Your task to perform on an android device: Search for macbook air on bestbuy.com, select the first entry, and add it to the cart. Image 0: 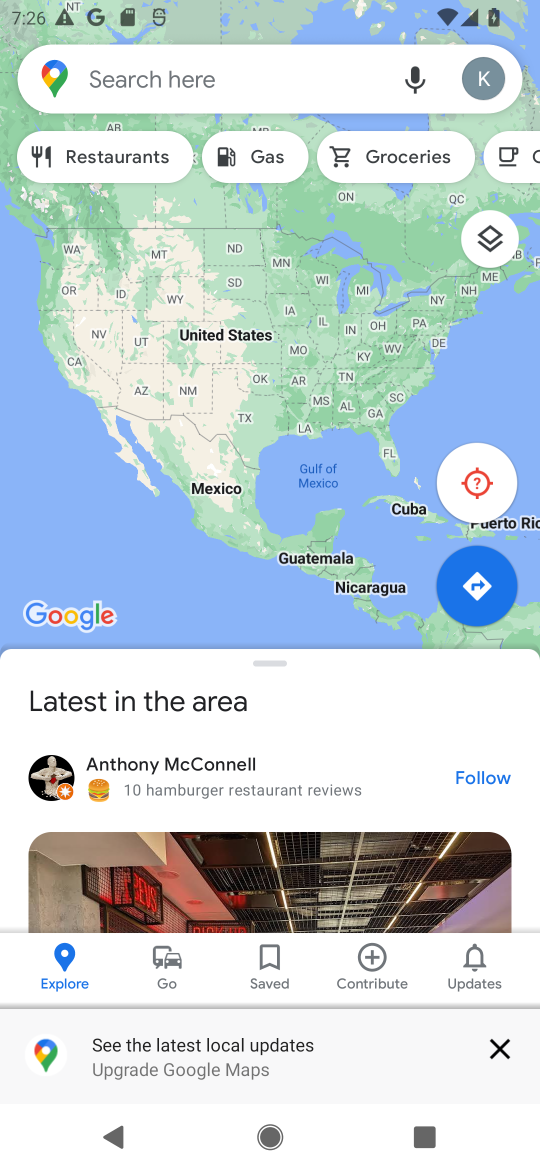
Step 0: press home button
Your task to perform on an android device: Search for macbook air on bestbuy.com, select the first entry, and add it to the cart. Image 1: 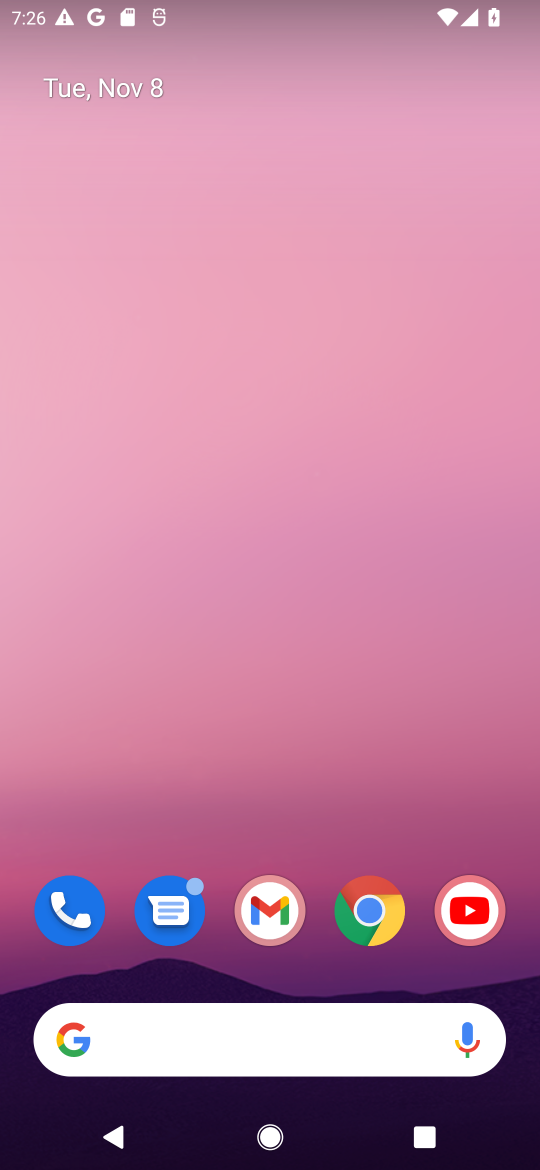
Step 1: click (377, 915)
Your task to perform on an android device: Search for macbook air on bestbuy.com, select the first entry, and add it to the cart. Image 2: 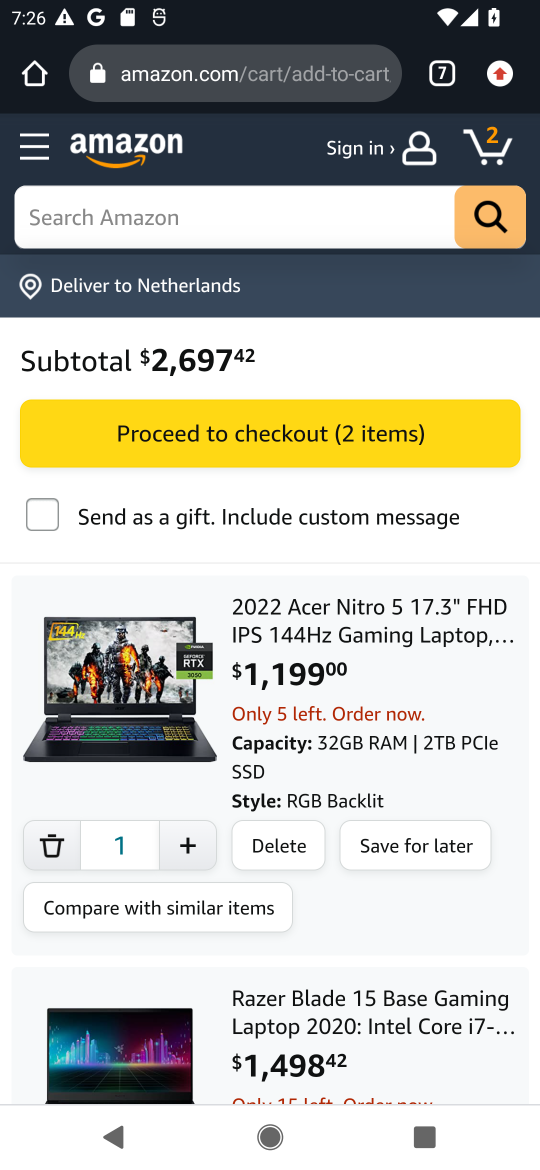
Step 2: click (444, 69)
Your task to perform on an android device: Search for macbook air on bestbuy.com, select the first entry, and add it to the cart. Image 3: 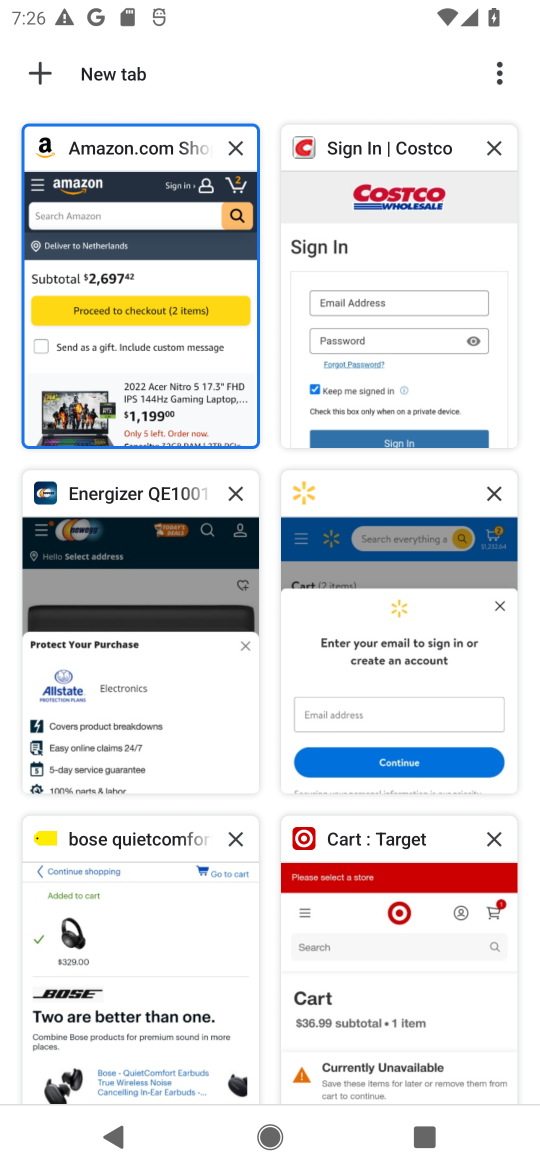
Step 3: click (131, 909)
Your task to perform on an android device: Search for macbook air on bestbuy.com, select the first entry, and add it to the cart. Image 4: 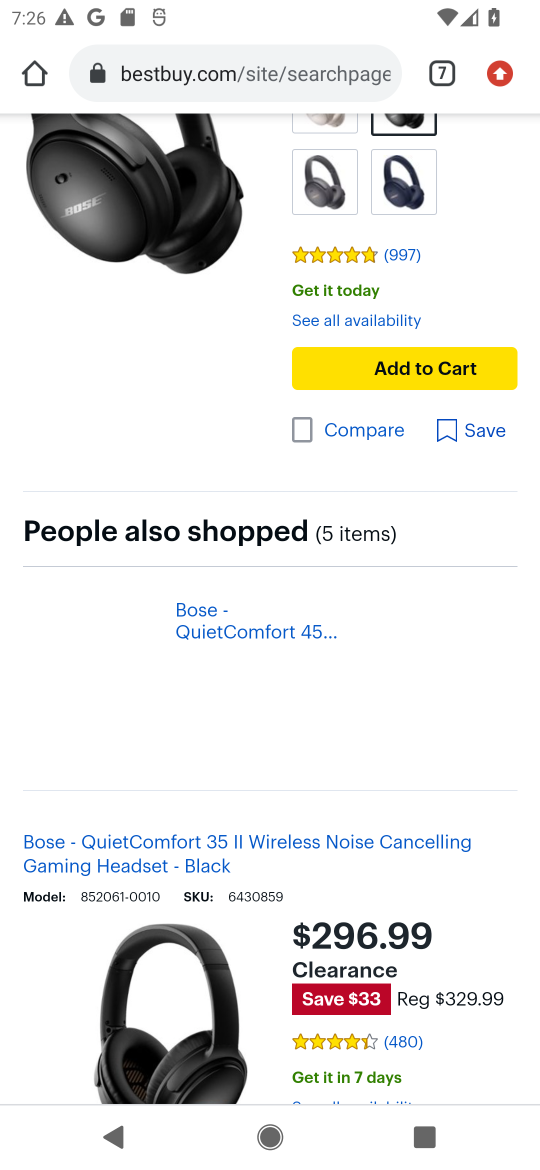
Step 4: drag from (141, 262) to (140, 828)
Your task to perform on an android device: Search for macbook air on bestbuy.com, select the first entry, and add it to the cart. Image 5: 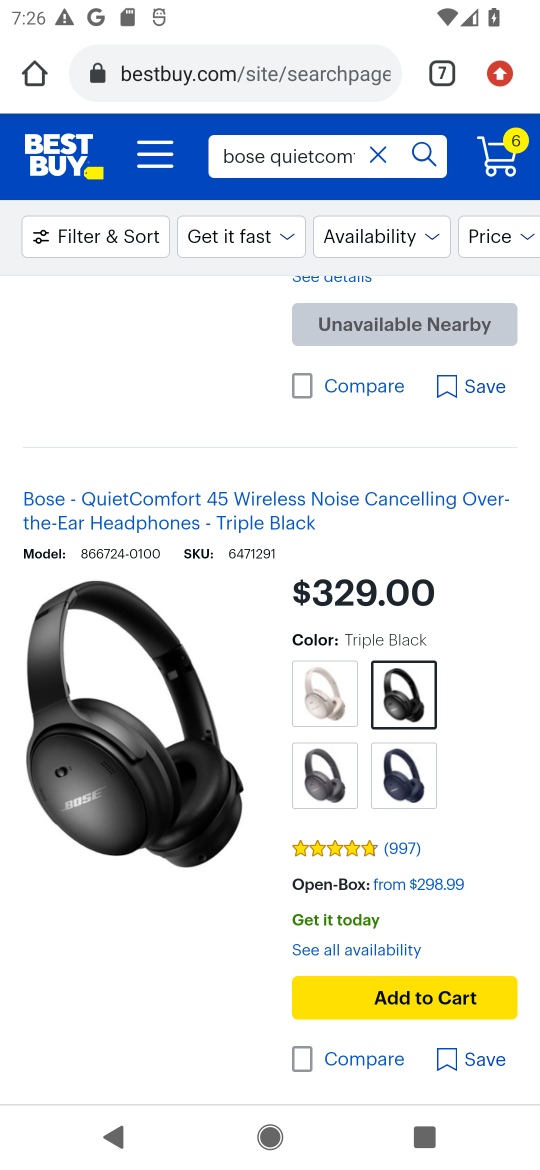
Step 5: click (378, 150)
Your task to perform on an android device: Search for macbook air on bestbuy.com, select the first entry, and add it to the cart. Image 6: 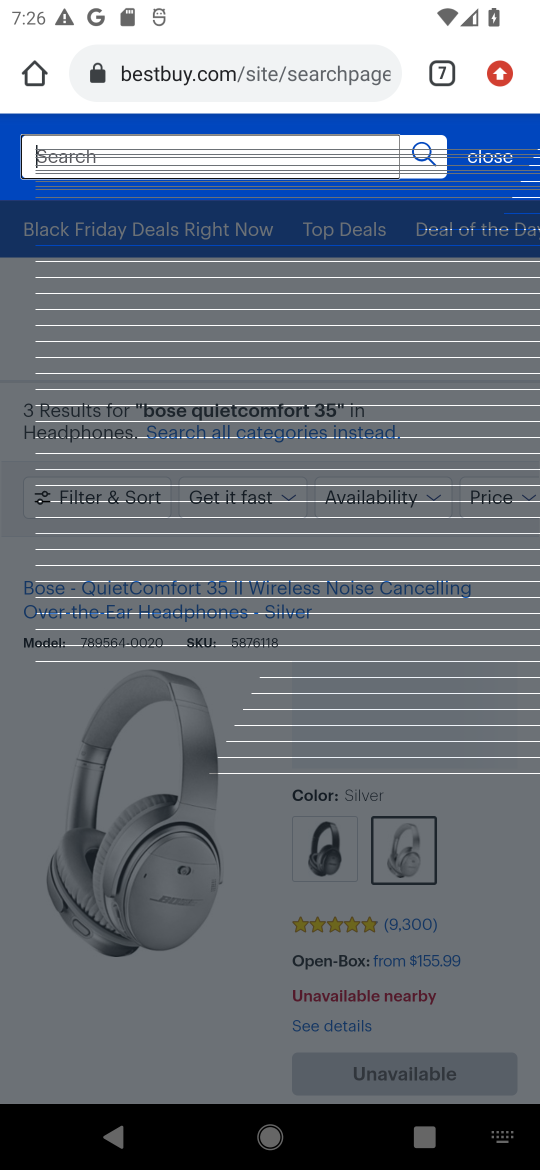
Step 6: type "macbook air "
Your task to perform on an android device: Search for macbook air on bestbuy.com, select the first entry, and add it to the cart. Image 7: 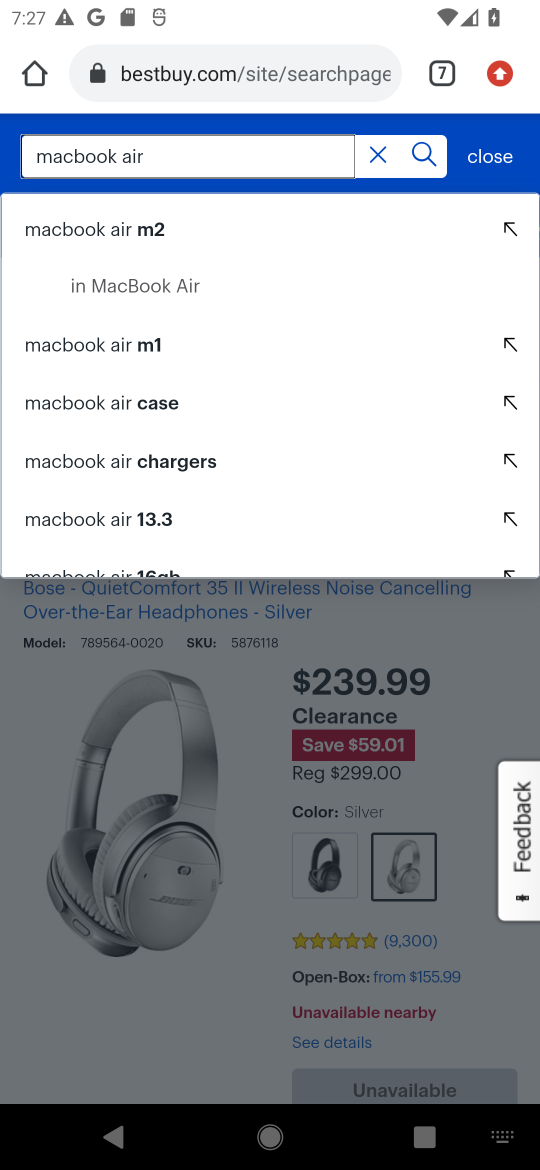
Step 7: click (89, 237)
Your task to perform on an android device: Search for macbook air on bestbuy.com, select the first entry, and add it to the cart. Image 8: 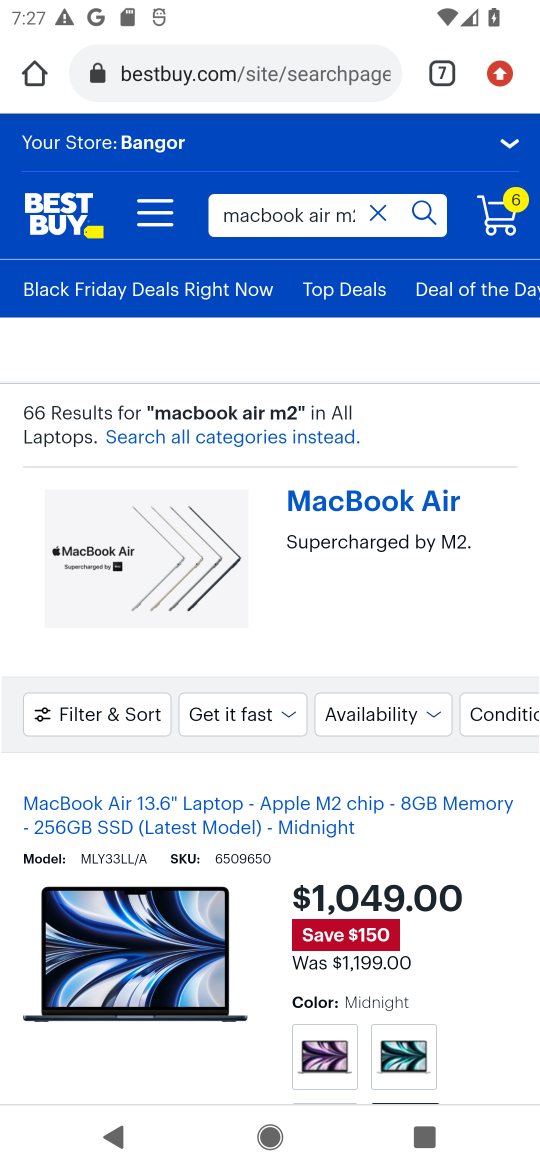
Step 8: drag from (415, 959) to (536, 678)
Your task to perform on an android device: Search for macbook air on bestbuy.com, select the first entry, and add it to the cart. Image 9: 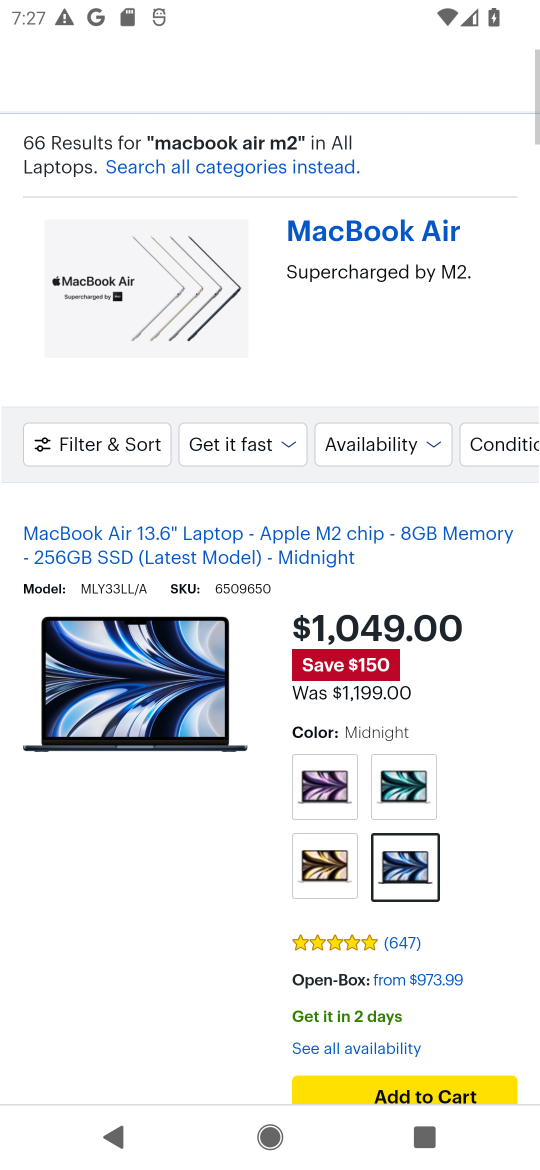
Step 9: click (410, 924)
Your task to perform on an android device: Search for macbook air on bestbuy.com, select the first entry, and add it to the cart. Image 10: 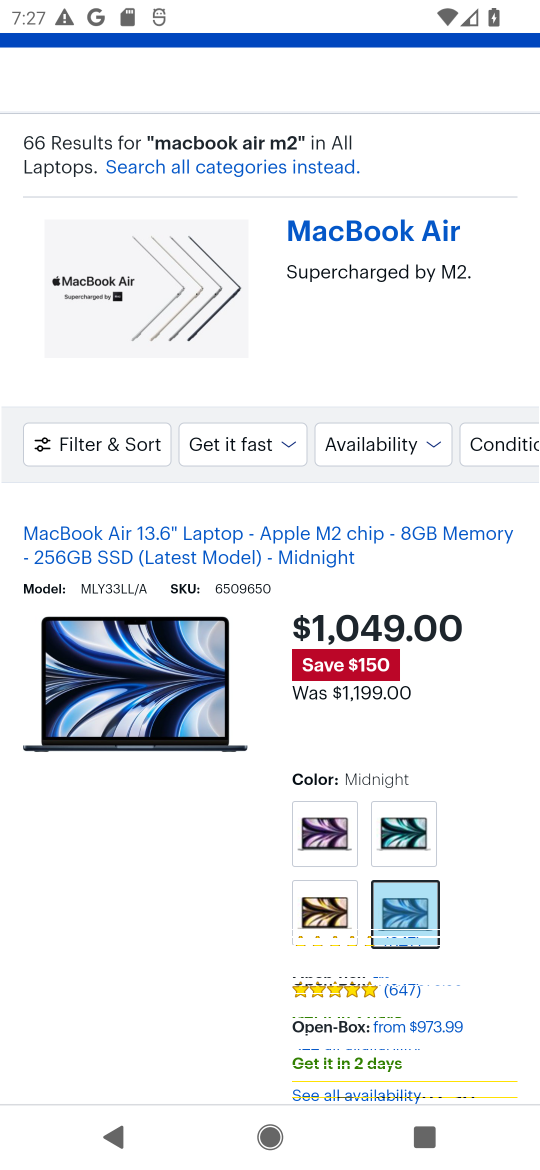
Step 10: drag from (433, 1070) to (485, 639)
Your task to perform on an android device: Search for macbook air on bestbuy.com, select the first entry, and add it to the cart. Image 11: 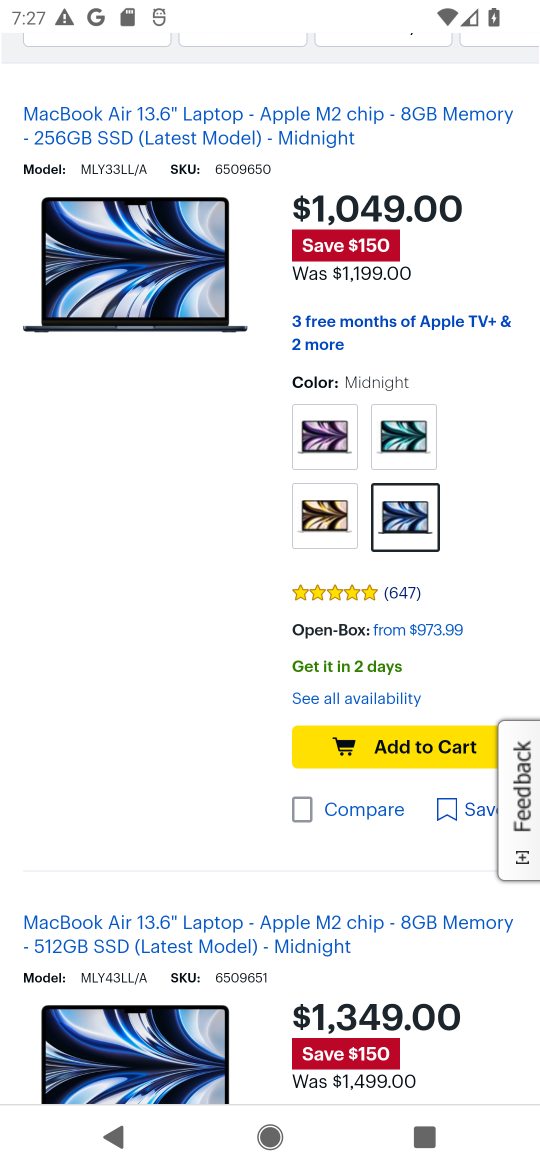
Step 11: click (426, 747)
Your task to perform on an android device: Search for macbook air on bestbuy.com, select the first entry, and add it to the cart. Image 12: 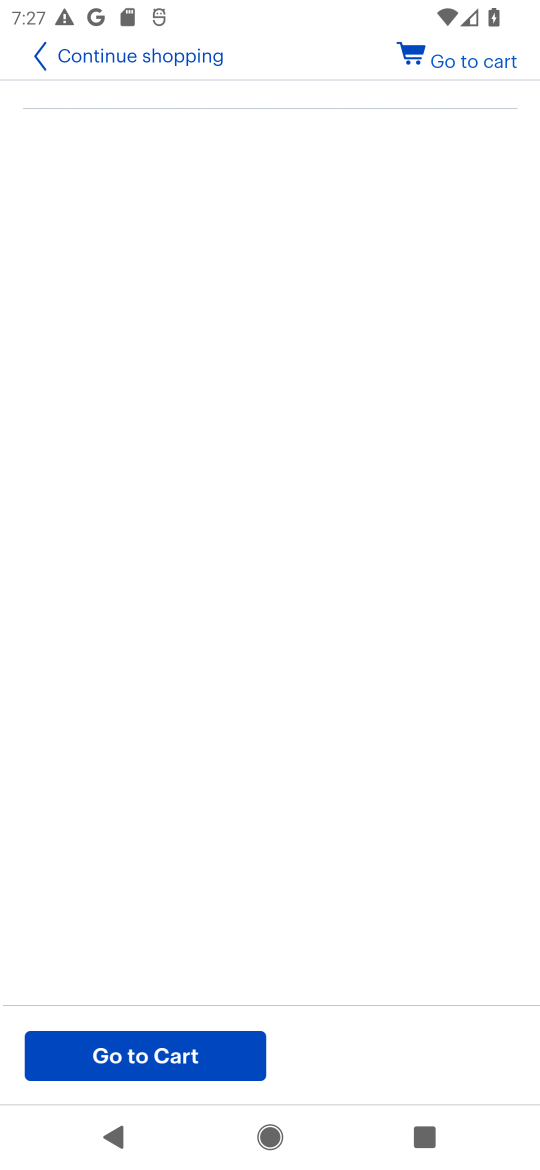
Step 12: task complete